Your task to perform on an android device: open app "DoorDash - Dasher" (install if not already installed) Image 0: 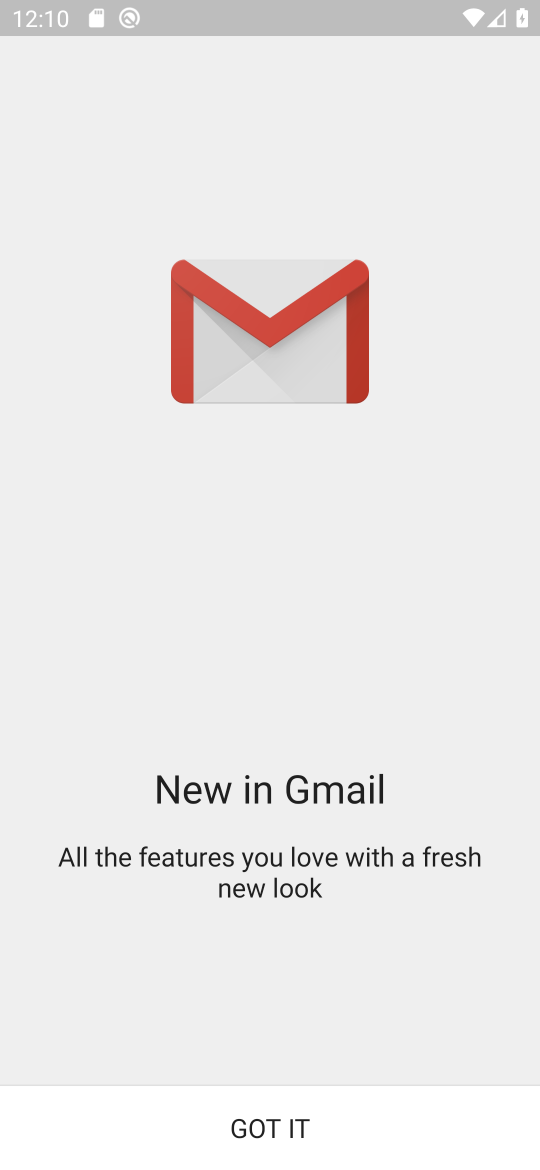
Step 0: press home button
Your task to perform on an android device: open app "DoorDash - Dasher" (install if not already installed) Image 1: 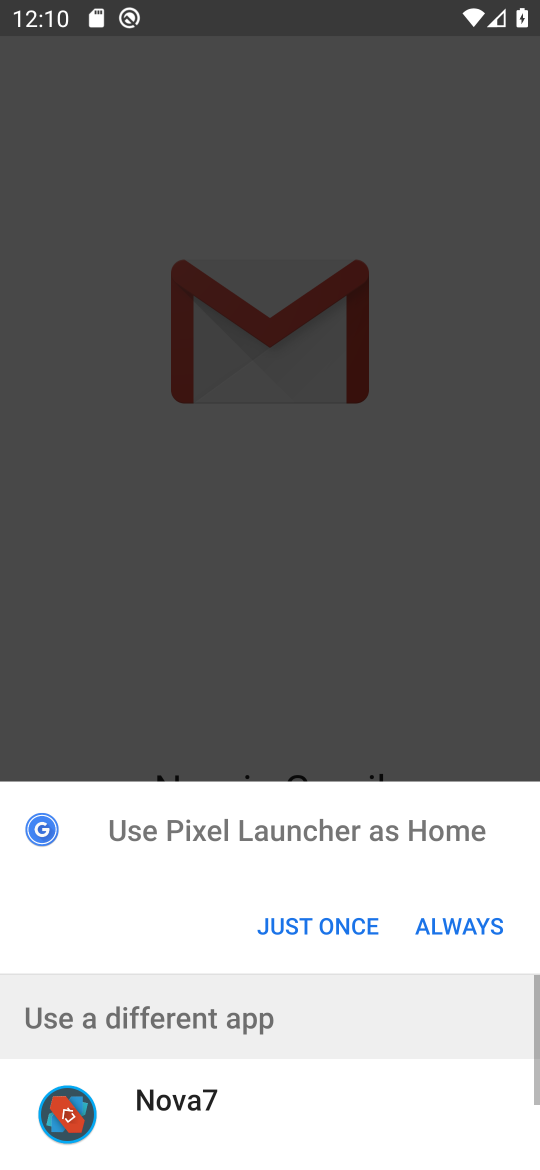
Step 1: click (279, 927)
Your task to perform on an android device: open app "DoorDash - Dasher" (install if not already installed) Image 2: 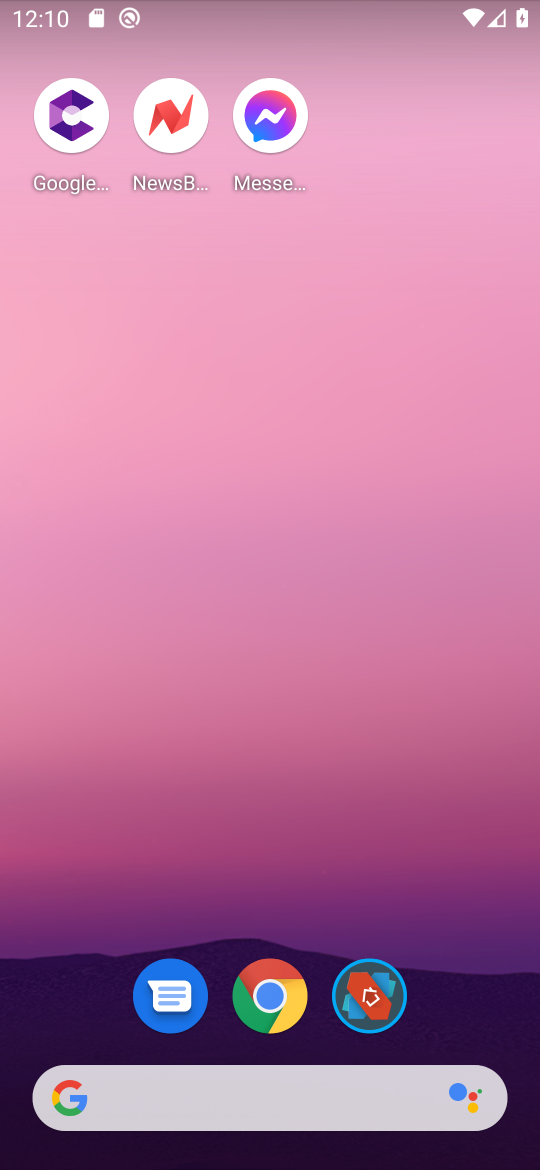
Step 2: drag from (338, 919) to (492, 318)
Your task to perform on an android device: open app "DoorDash - Dasher" (install if not already installed) Image 3: 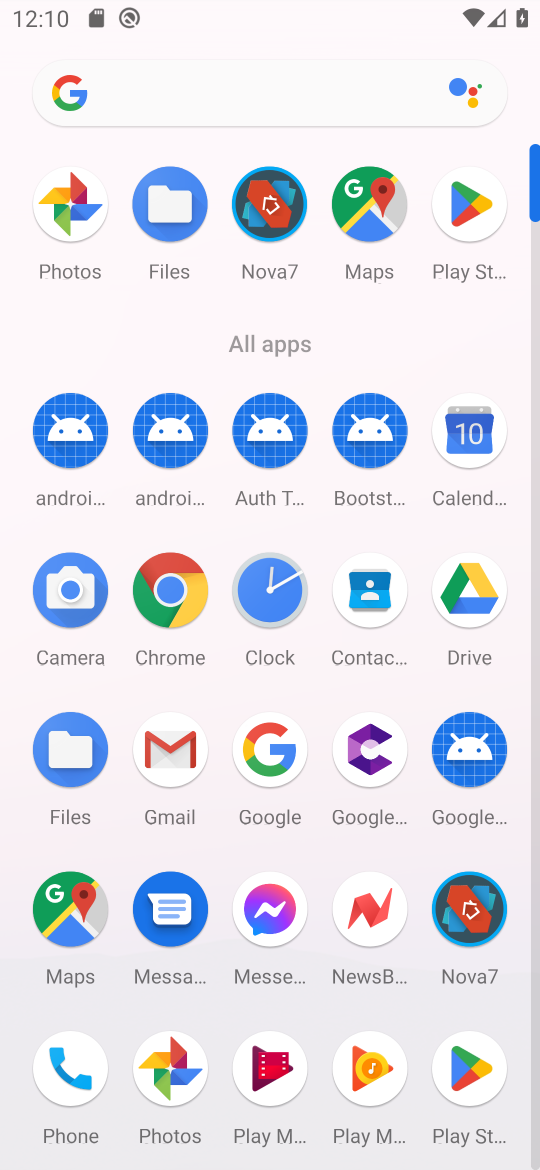
Step 3: click (467, 201)
Your task to perform on an android device: open app "DoorDash - Dasher" (install if not already installed) Image 4: 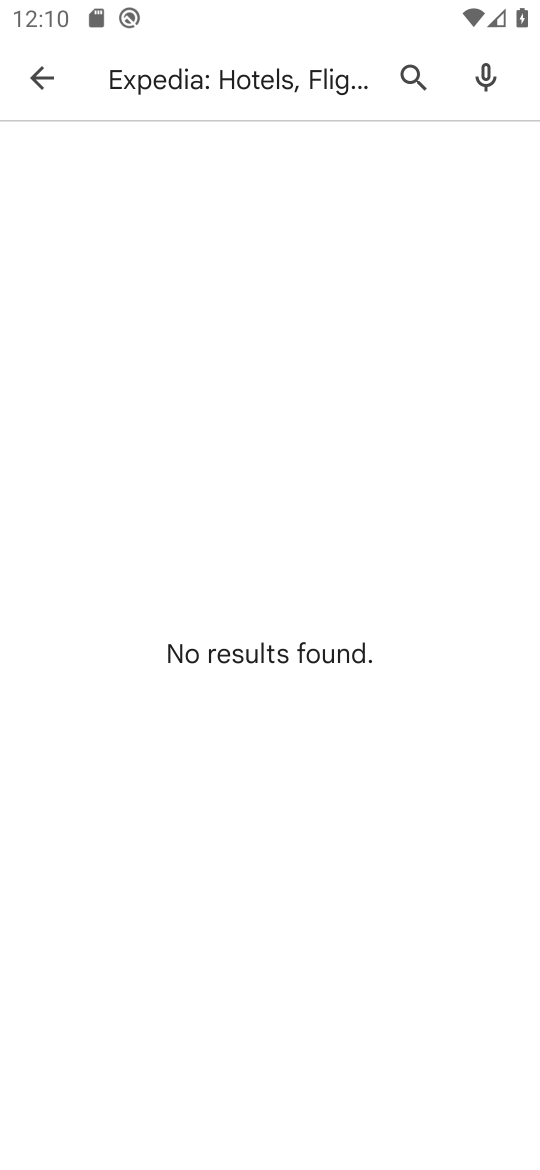
Step 4: press back button
Your task to perform on an android device: open app "DoorDash - Dasher" (install if not already installed) Image 5: 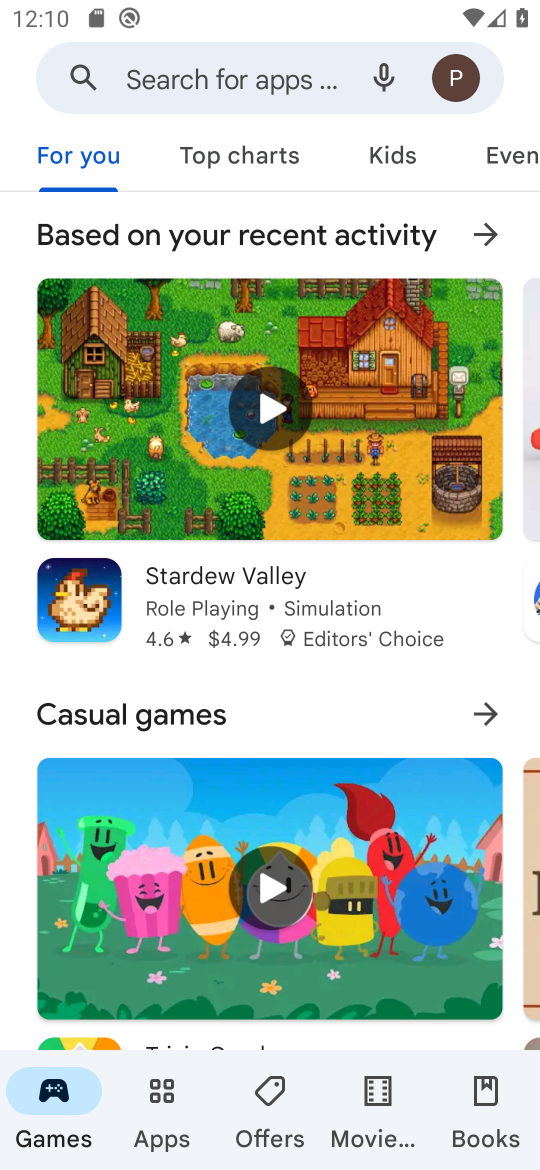
Step 5: click (259, 80)
Your task to perform on an android device: open app "DoorDash - Dasher" (install if not already installed) Image 6: 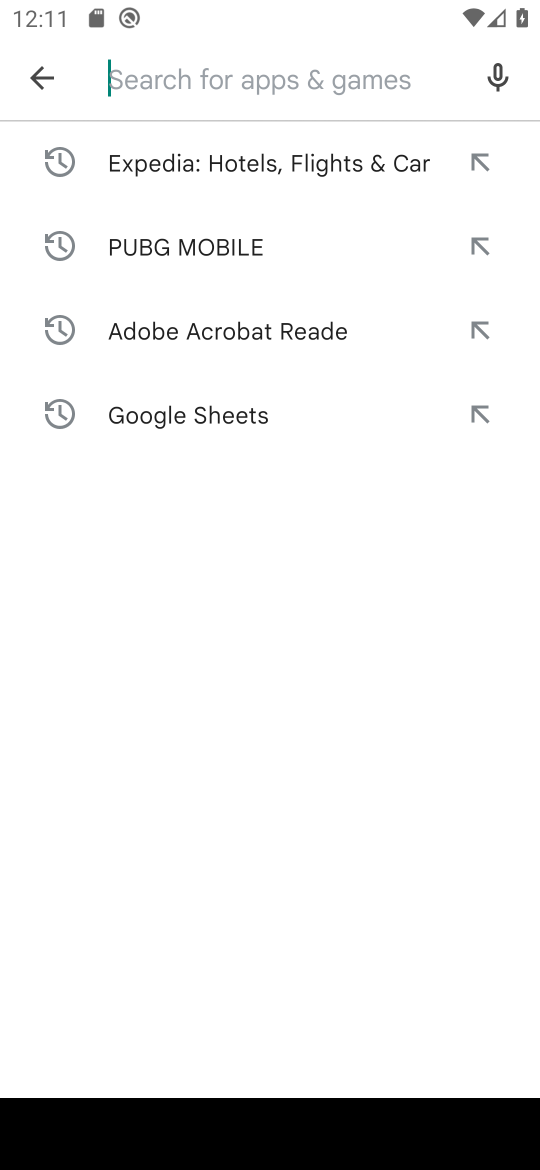
Step 6: type "DoorDash - Dasher"
Your task to perform on an android device: open app "DoorDash - Dasher" (install if not already installed) Image 7: 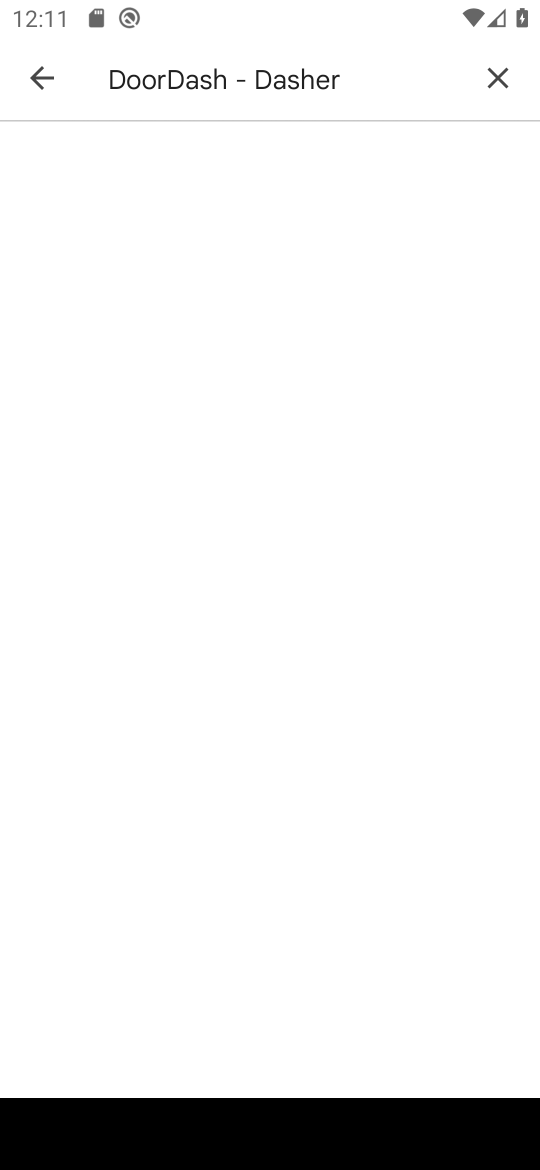
Step 7: press enter
Your task to perform on an android device: open app "DoorDash - Dasher" (install if not already installed) Image 8: 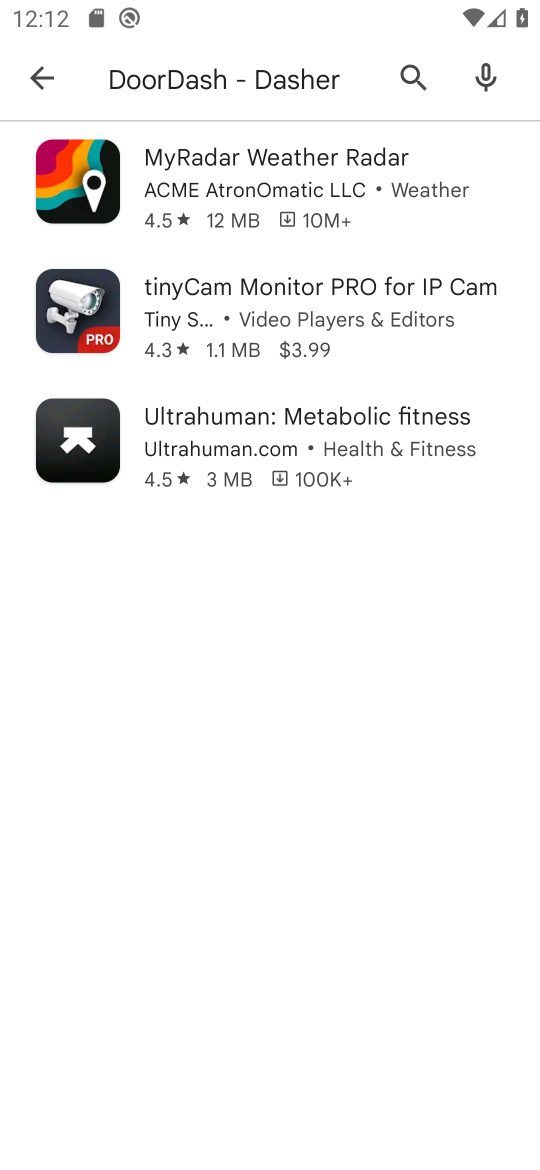
Step 8: task complete